Your task to perform on an android device: find which apps use the phone's location Image 0: 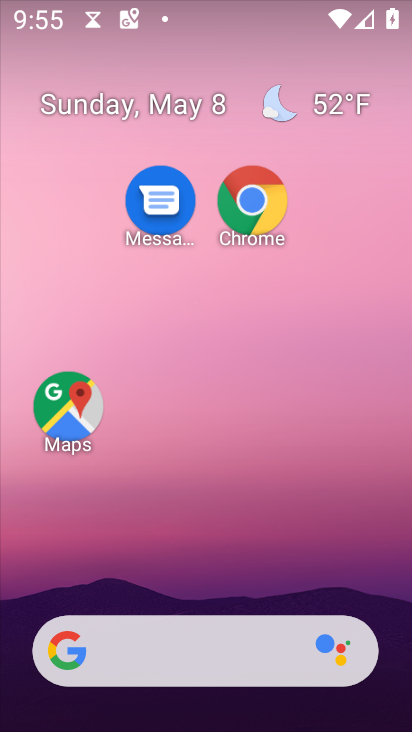
Step 0: drag from (213, 612) to (354, 26)
Your task to perform on an android device: find which apps use the phone's location Image 1: 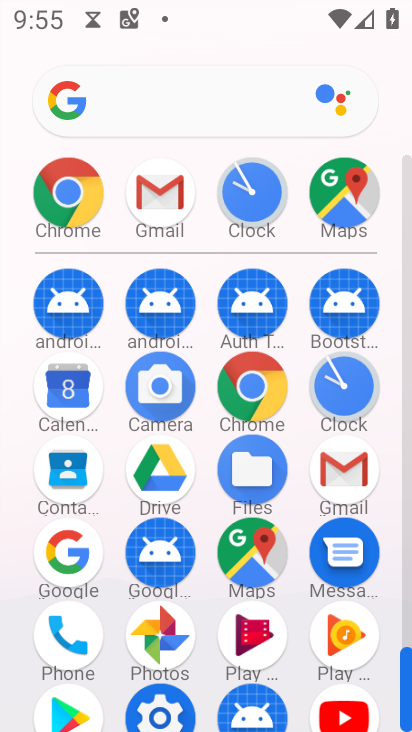
Step 1: click (170, 712)
Your task to perform on an android device: find which apps use the phone's location Image 2: 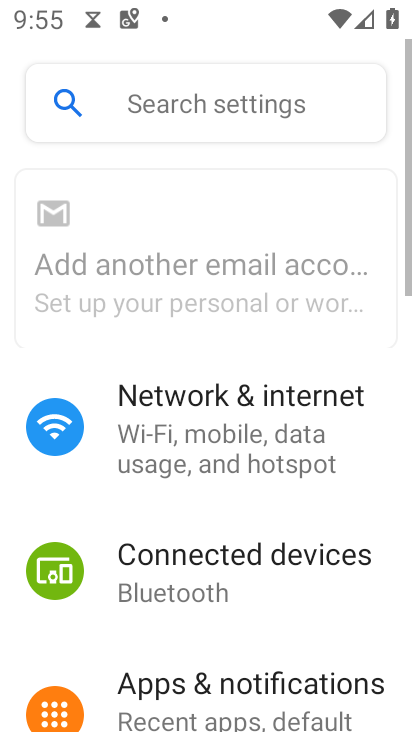
Step 2: drag from (211, 591) to (115, 37)
Your task to perform on an android device: find which apps use the phone's location Image 3: 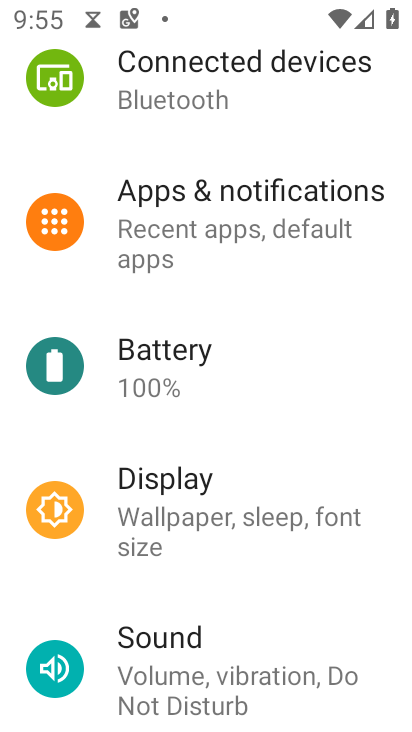
Step 3: drag from (224, 549) to (168, 0)
Your task to perform on an android device: find which apps use the phone's location Image 4: 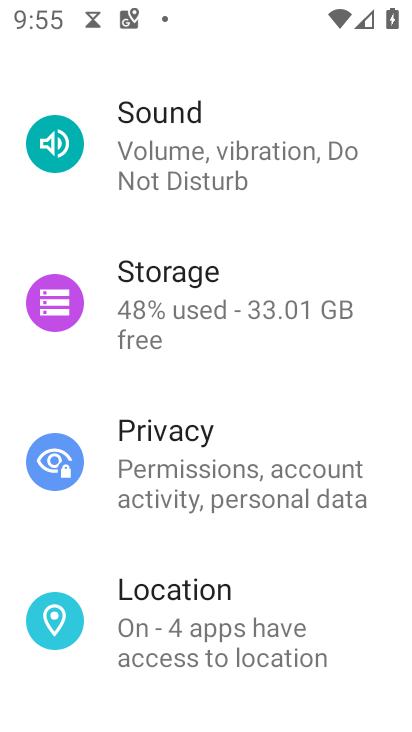
Step 4: click (180, 578)
Your task to perform on an android device: find which apps use the phone's location Image 5: 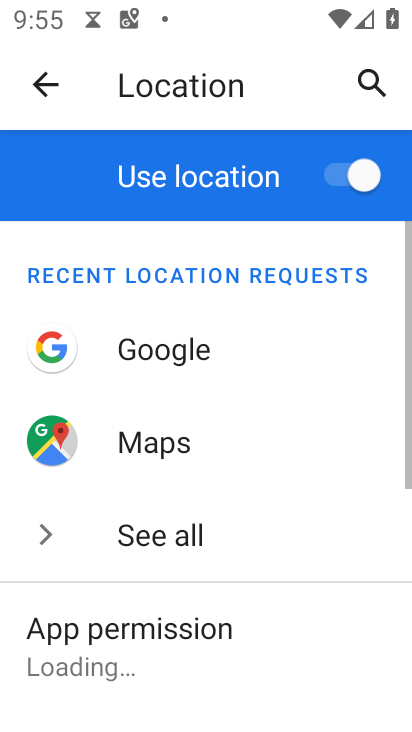
Step 5: drag from (241, 627) to (211, 68)
Your task to perform on an android device: find which apps use the phone's location Image 6: 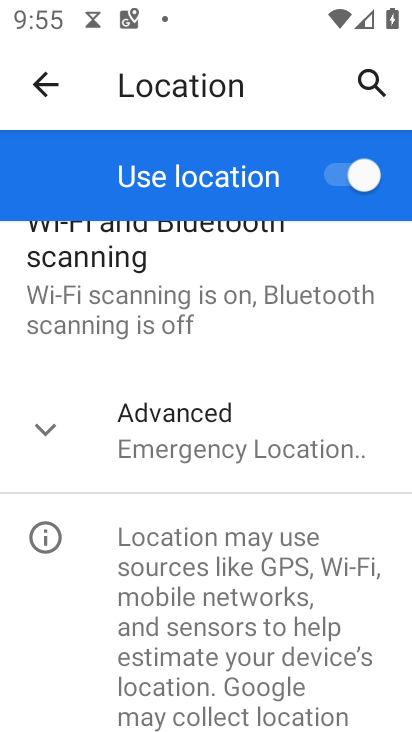
Step 6: drag from (138, 243) to (156, 595)
Your task to perform on an android device: find which apps use the phone's location Image 7: 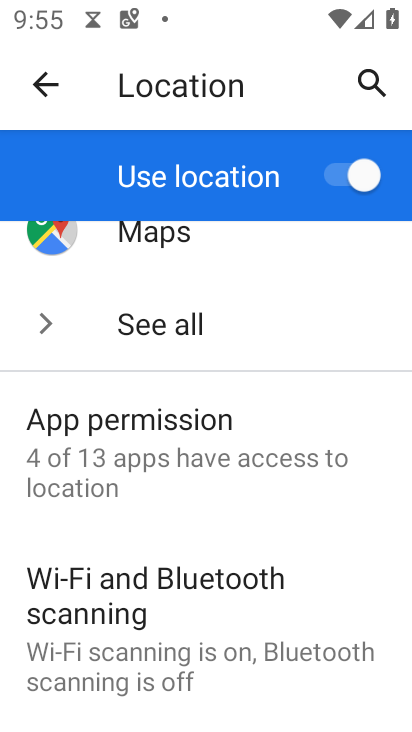
Step 7: click (130, 473)
Your task to perform on an android device: find which apps use the phone's location Image 8: 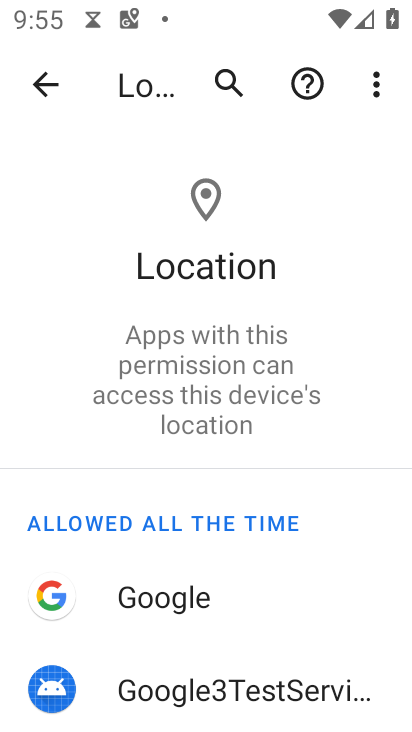
Step 8: task complete